Your task to perform on an android device: Open network settings Image 0: 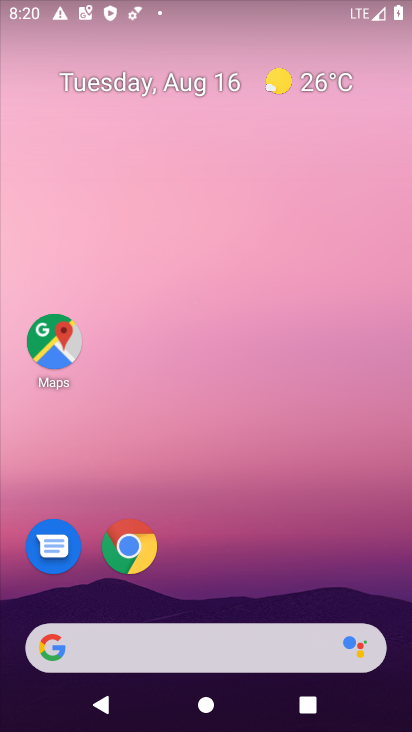
Step 0: drag from (207, 557) to (218, 1)
Your task to perform on an android device: Open network settings Image 1: 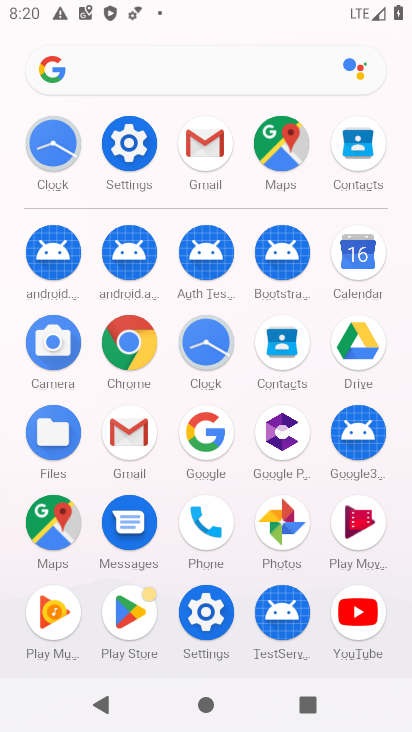
Step 1: click (132, 141)
Your task to perform on an android device: Open network settings Image 2: 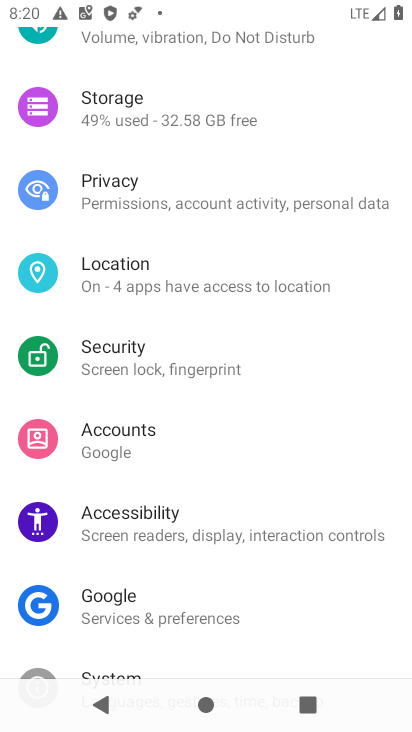
Step 2: drag from (199, 160) to (205, 712)
Your task to perform on an android device: Open network settings Image 3: 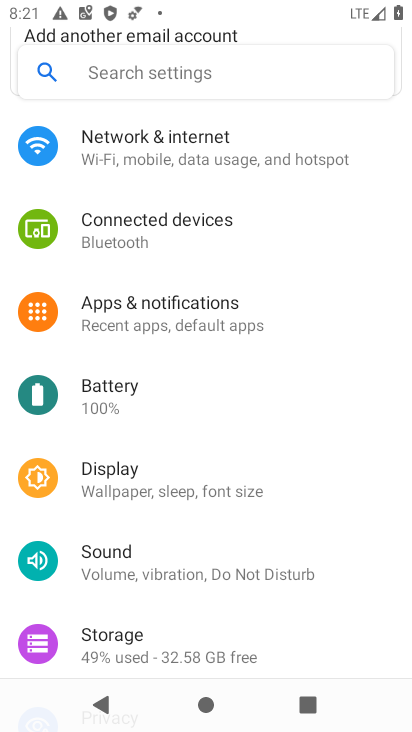
Step 3: click (219, 157)
Your task to perform on an android device: Open network settings Image 4: 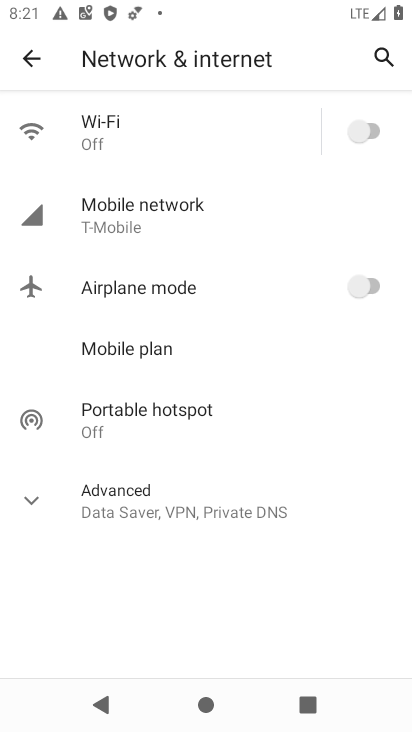
Step 4: task complete